Your task to perform on an android device: Check the settings for the Instagram app Image 0: 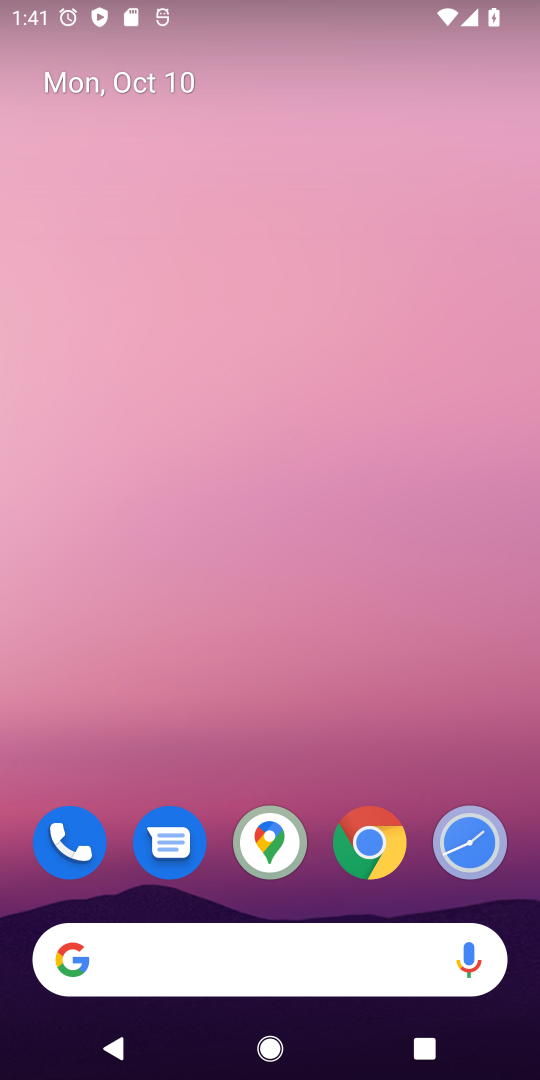
Step 0: drag from (319, 991) to (358, 436)
Your task to perform on an android device: Check the settings for the Instagram app Image 1: 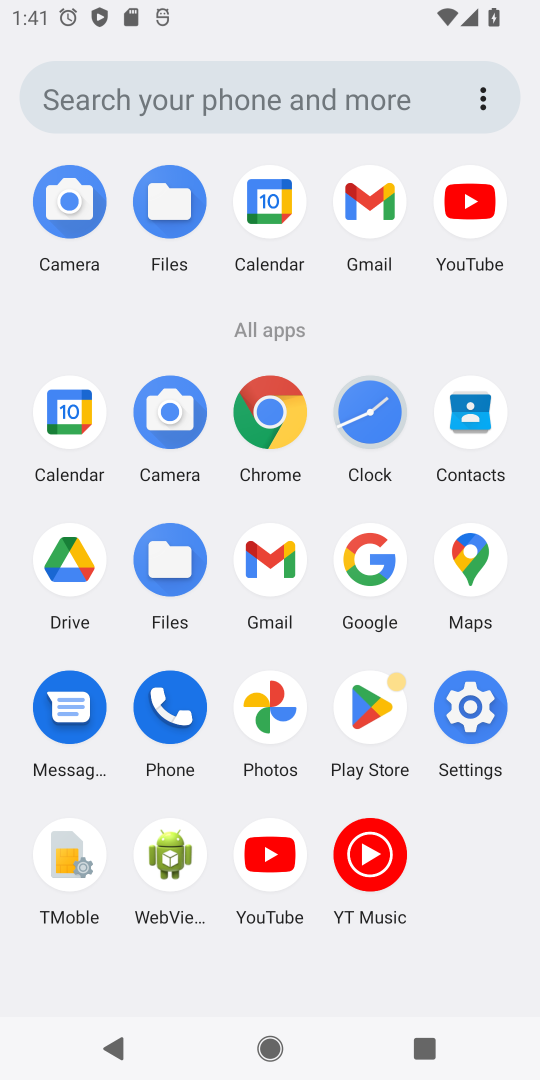
Step 1: task complete